Your task to perform on an android device: toggle show notifications on the lock screen Image 0: 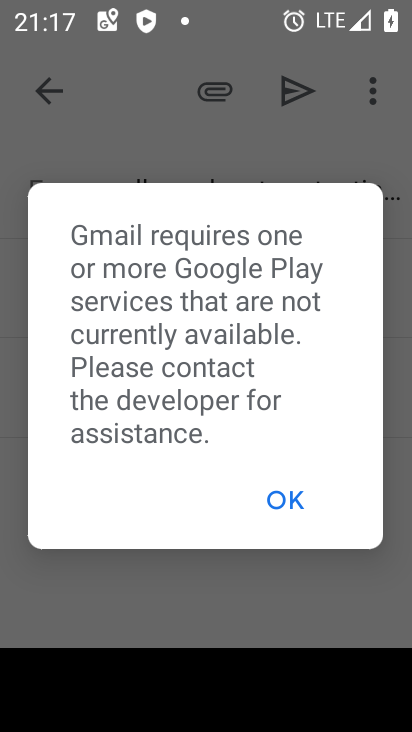
Step 0: press home button
Your task to perform on an android device: toggle show notifications on the lock screen Image 1: 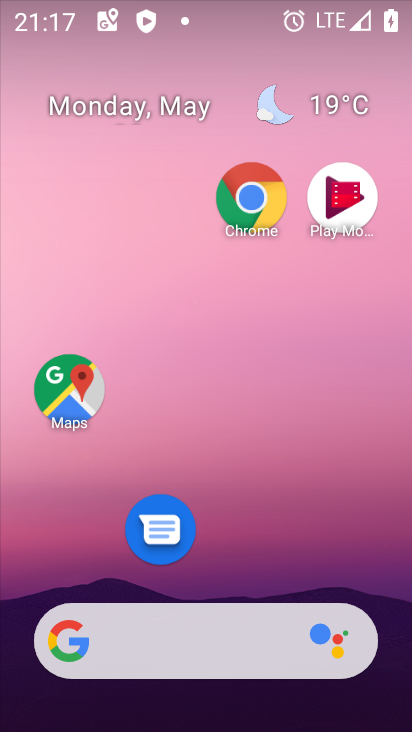
Step 1: drag from (240, 555) to (223, 159)
Your task to perform on an android device: toggle show notifications on the lock screen Image 2: 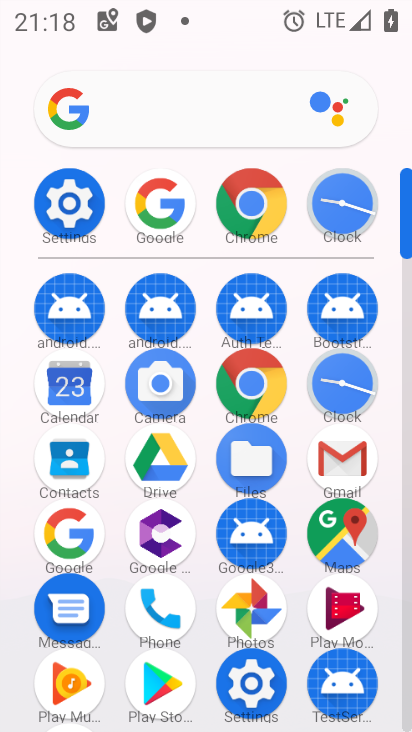
Step 2: click (67, 219)
Your task to perform on an android device: toggle show notifications on the lock screen Image 3: 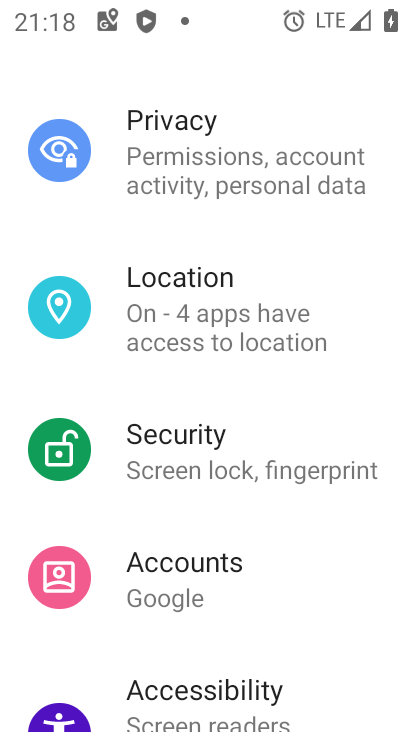
Step 3: drag from (218, 608) to (230, 358)
Your task to perform on an android device: toggle show notifications on the lock screen Image 4: 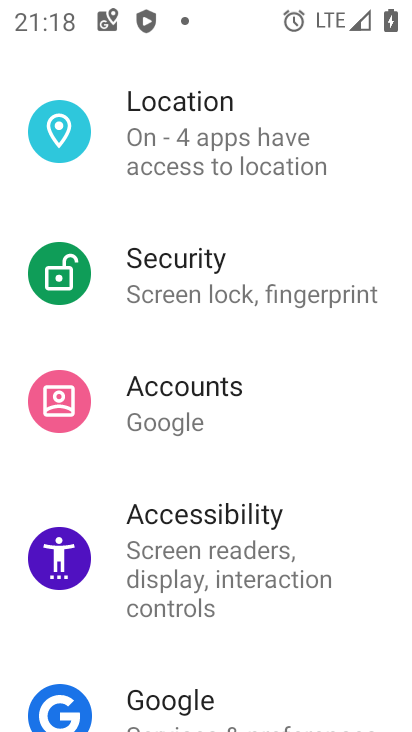
Step 4: drag from (236, 293) to (214, 636)
Your task to perform on an android device: toggle show notifications on the lock screen Image 5: 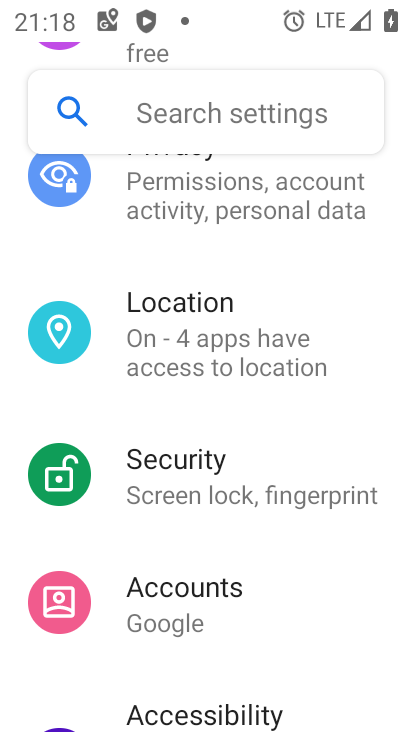
Step 5: drag from (250, 312) to (202, 660)
Your task to perform on an android device: toggle show notifications on the lock screen Image 6: 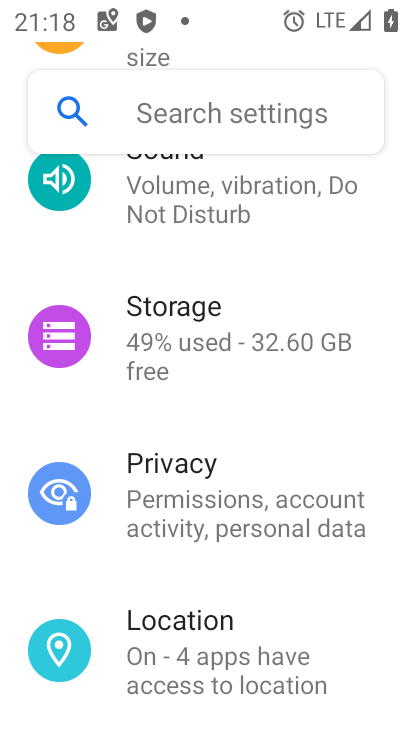
Step 6: drag from (226, 349) to (204, 686)
Your task to perform on an android device: toggle show notifications on the lock screen Image 7: 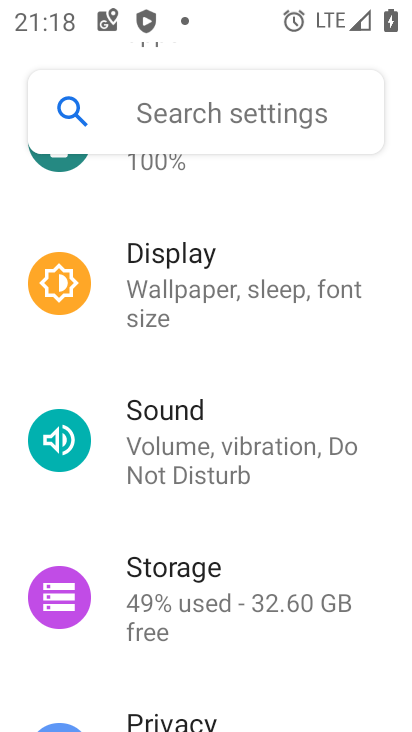
Step 7: drag from (220, 412) to (194, 729)
Your task to perform on an android device: toggle show notifications on the lock screen Image 8: 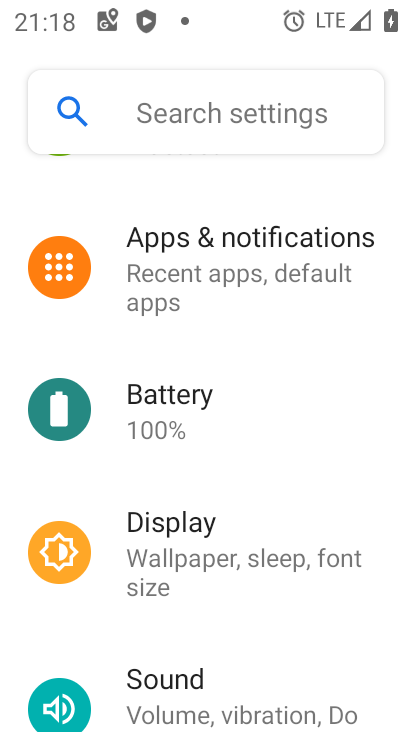
Step 8: drag from (224, 376) to (172, 686)
Your task to perform on an android device: toggle show notifications on the lock screen Image 9: 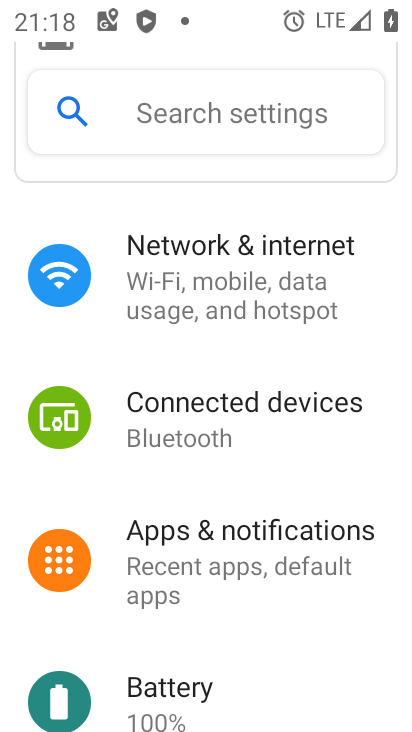
Step 9: click (188, 561)
Your task to perform on an android device: toggle show notifications on the lock screen Image 10: 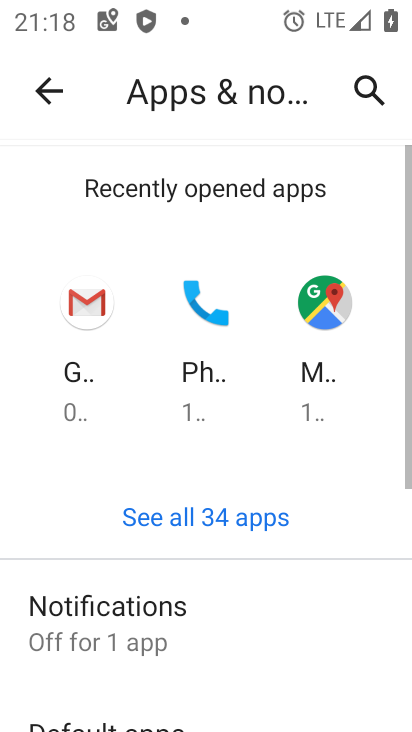
Step 10: drag from (192, 663) to (209, 364)
Your task to perform on an android device: toggle show notifications on the lock screen Image 11: 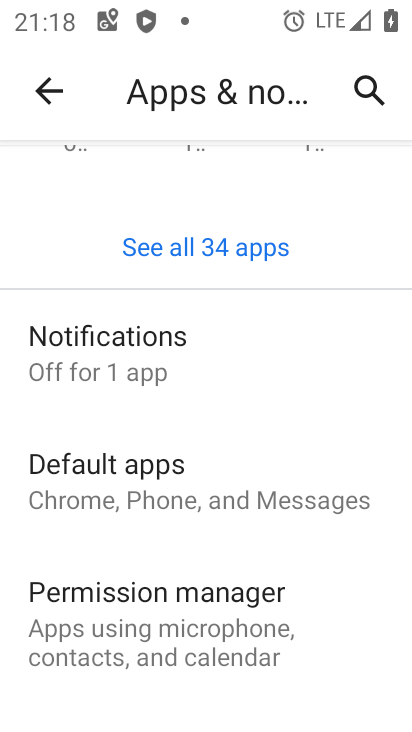
Step 11: drag from (201, 675) to (230, 330)
Your task to perform on an android device: toggle show notifications on the lock screen Image 12: 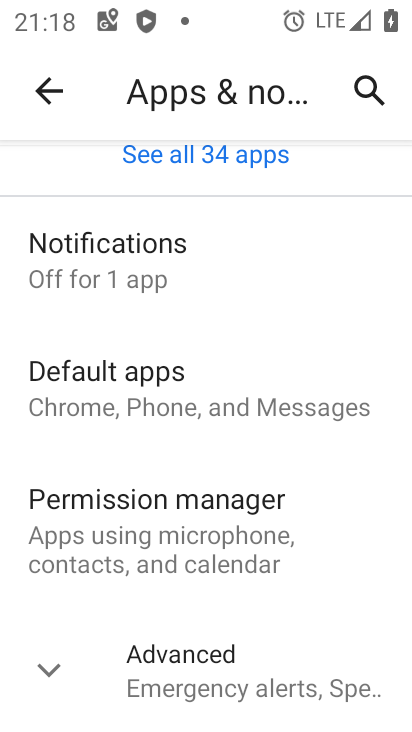
Step 12: click (138, 277)
Your task to perform on an android device: toggle show notifications on the lock screen Image 13: 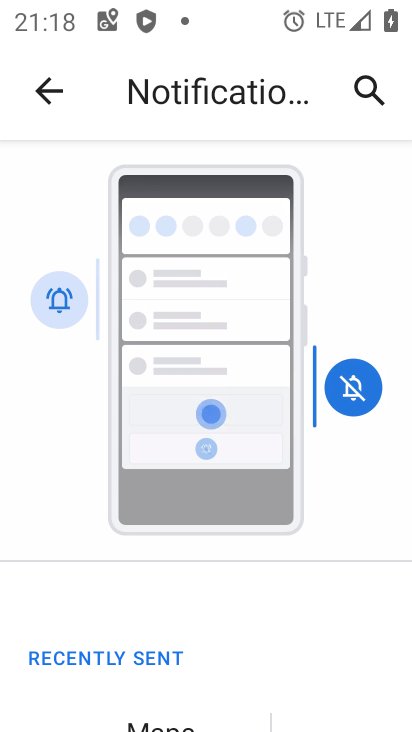
Step 13: drag from (207, 690) to (244, 347)
Your task to perform on an android device: toggle show notifications on the lock screen Image 14: 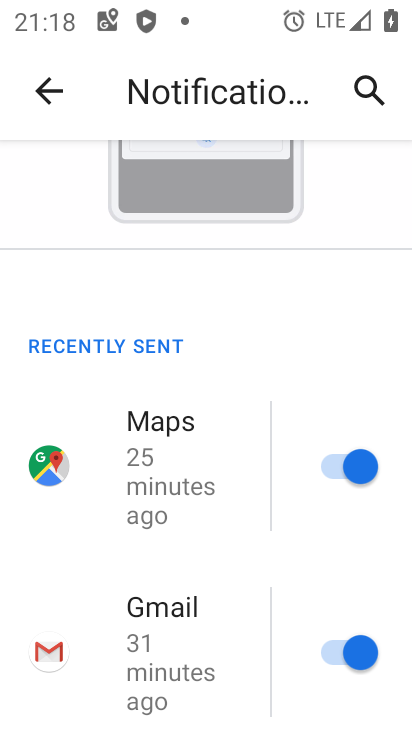
Step 14: drag from (193, 649) to (235, 343)
Your task to perform on an android device: toggle show notifications on the lock screen Image 15: 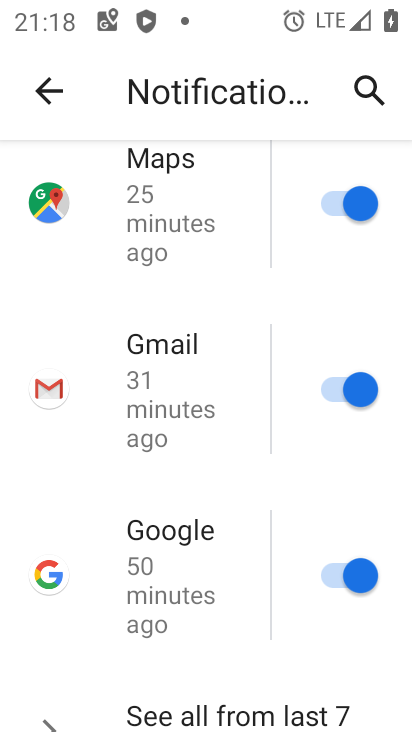
Step 15: drag from (182, 705) to (227, 397)
Your task to perform on an android device: toggle show notifications on the lock screen Image 16: 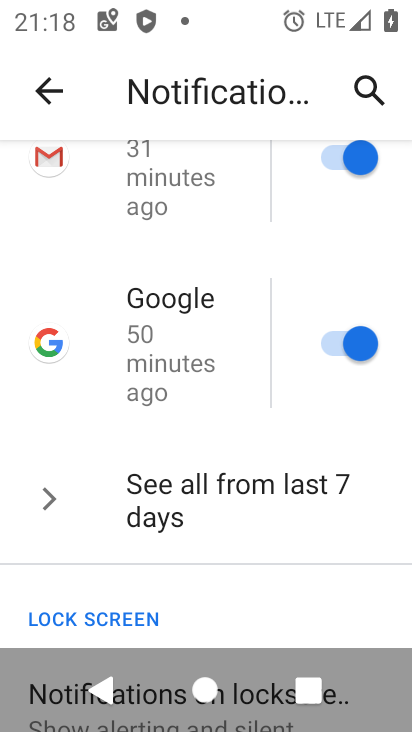
Step 16: drag from (185, 631) to (216, 447)
Your task to perform on an android device: toggle show notifications on the lock screen Image 17: 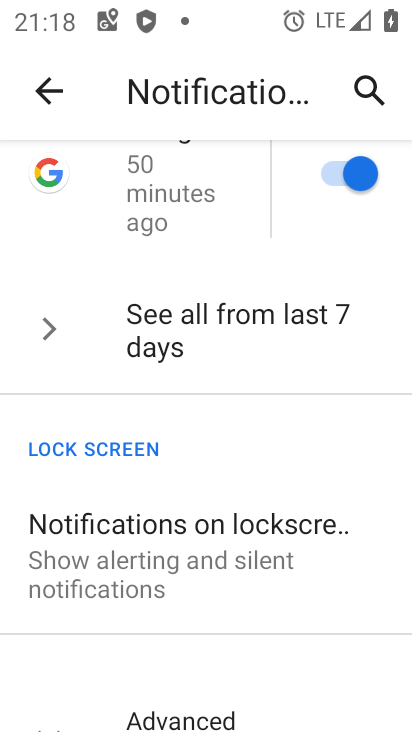
Step 17: click (182, 564)
Your task to perform on an android device: toggle show notifications on the lock screen Image 18: 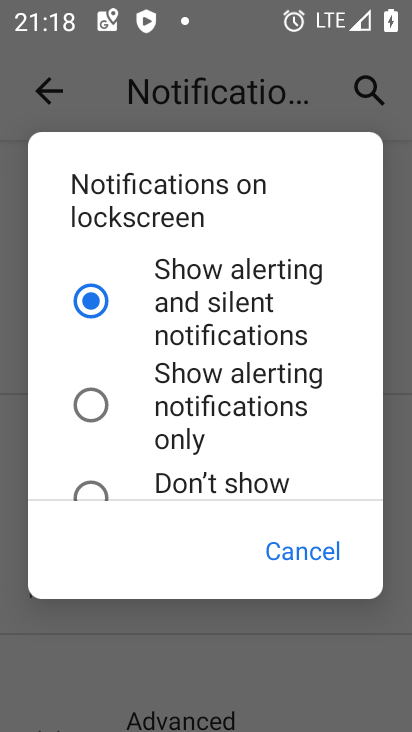
Step 18: click (92, 490)
Your task to perform on an android device: toggle show notifications on the lock screen Image 19: 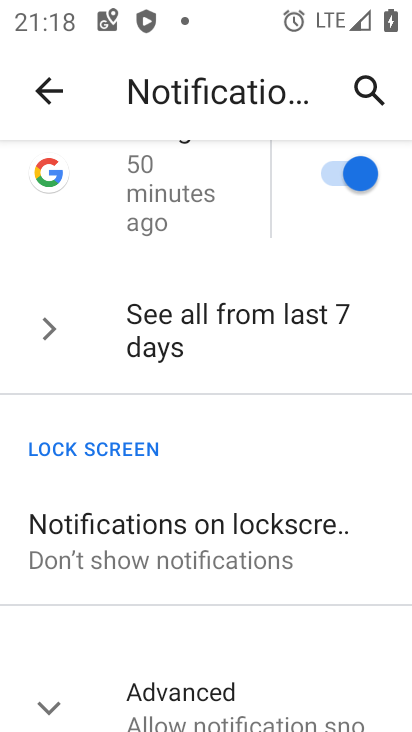
Step 19: task complete